Your task to perform on an android device: Go to eBay Image 0: 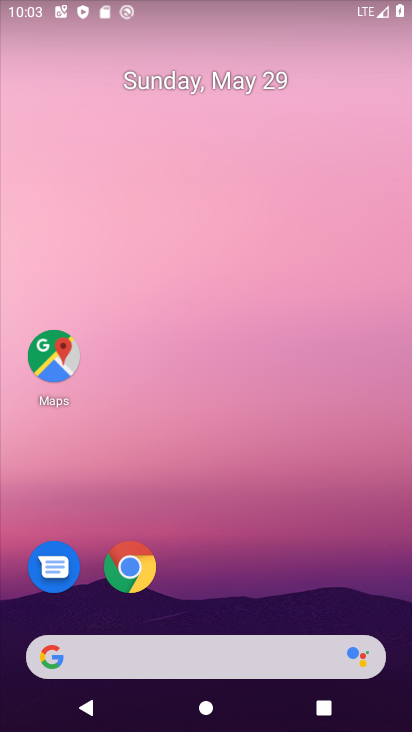
Step 0: click (132, 569)
Your task to perform on an android device: Go to eBay Image 1: 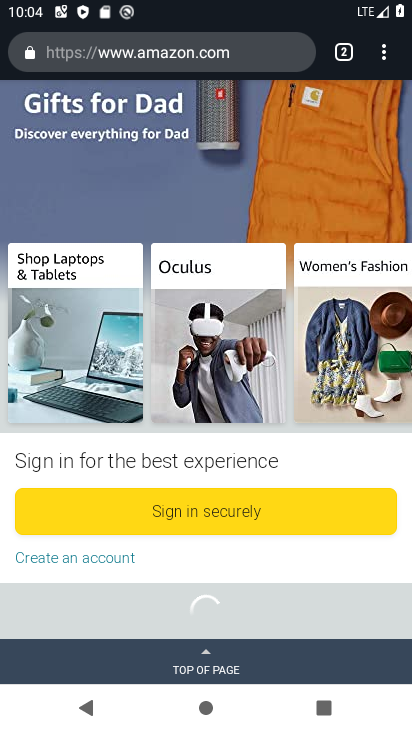
Step 1: click (256, 65)
Your task to perform on an android device: Go to eBay Image 2: 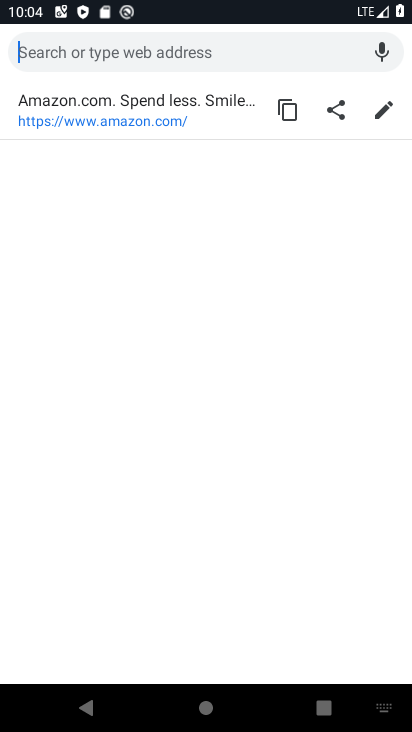
Step 2: type "ebay"
Your task to perform on an android device: Go to eBay Image 3: 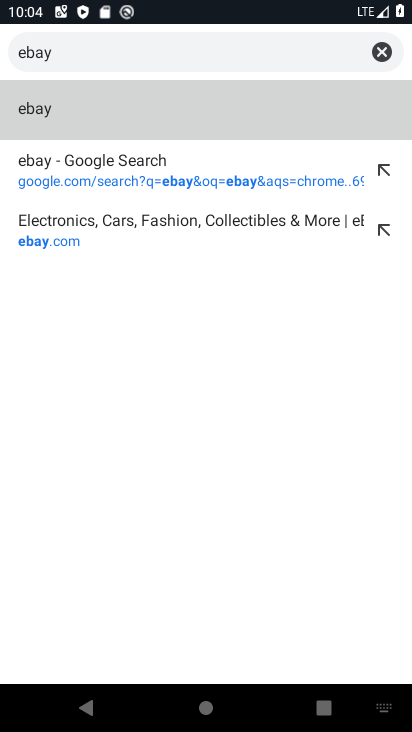
Step 3: click (59, 102)
Your task to perform on an android device: Go to eBay Image 4: 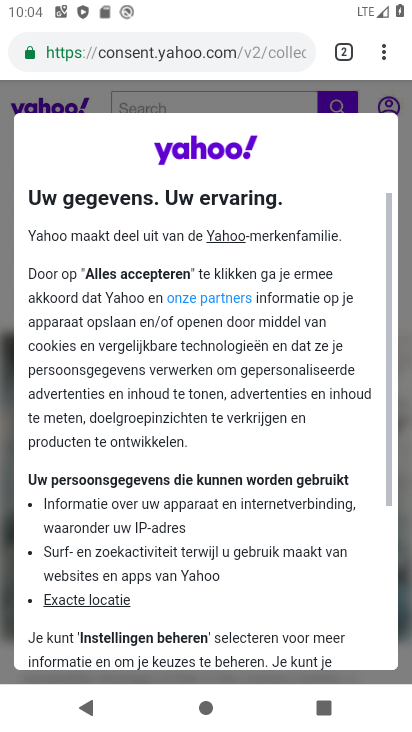
Step 4: drag from (216, 530) to (238, 149)
Your task to perform on an android device: Go to eBay Image 5: 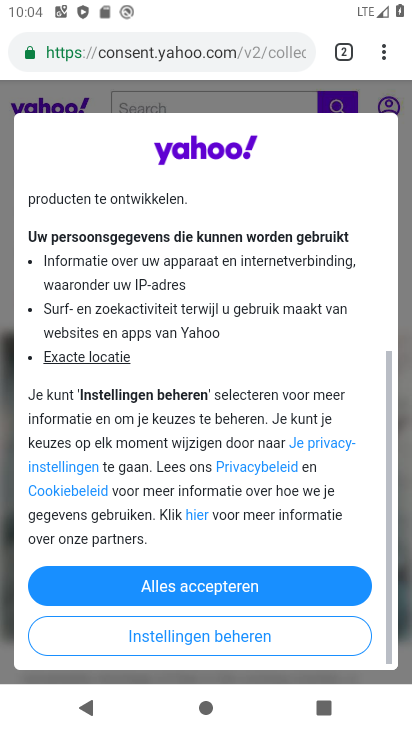
Step 5: click (209, 578)
Your task to perform on an android device: Go to eBay Image 6: 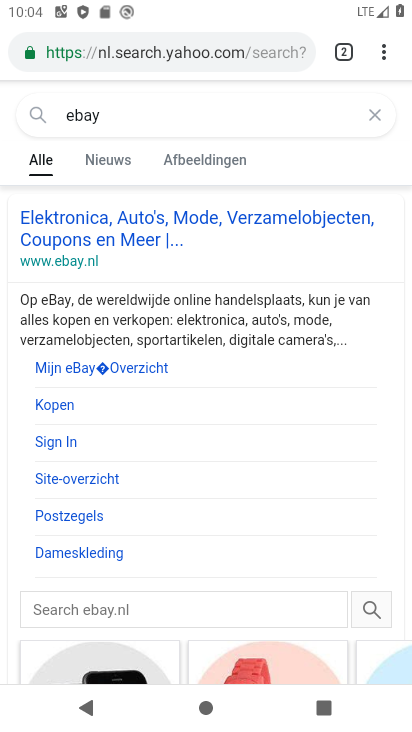
Step 6: click (70, 238)
Your task to perform on an android device: Go to eBay Image 7: 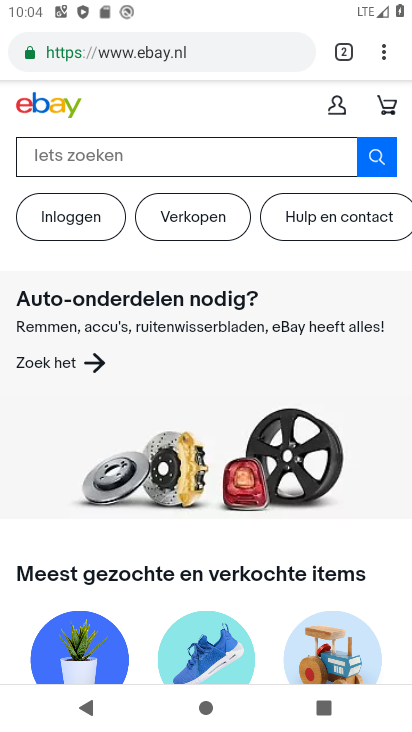
Step 7: task complete